Your task to perform on an android device: turn notification dots off Image 0: 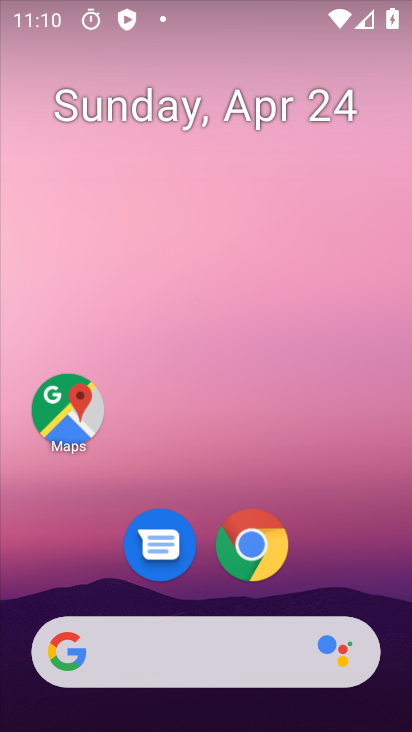
Step 0: drag from (303, 537) to (316, 169)
Your task to perform on an android device: turn notification dots off Image 1: 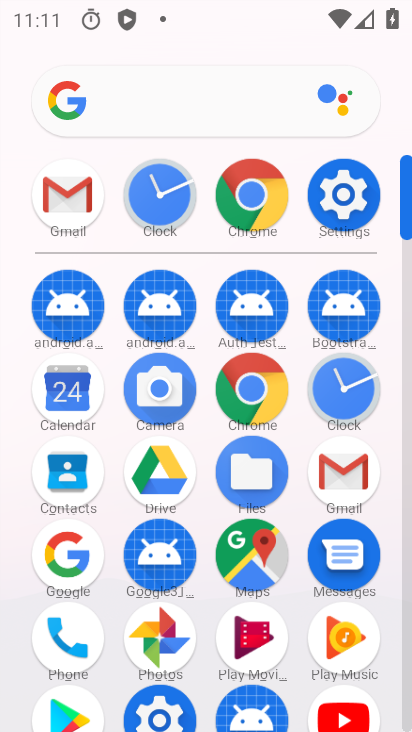
Step 1: click (350, 194)
Your task to perform on an android device: turn notification dots off Image 2: 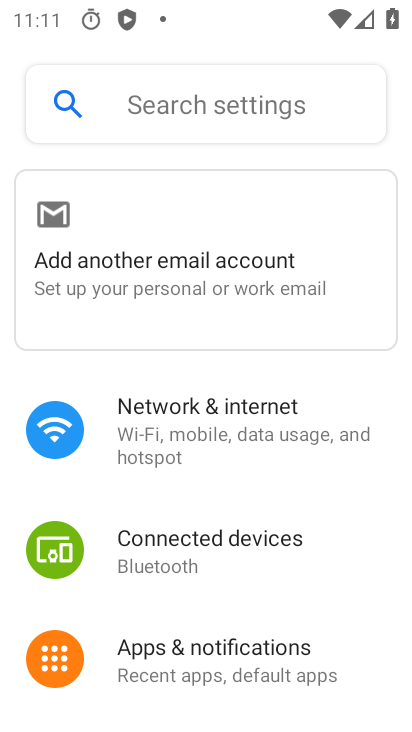
Step 2: click (204, 109)
Your task to perform on an android device: turn notification dots off Image 3: 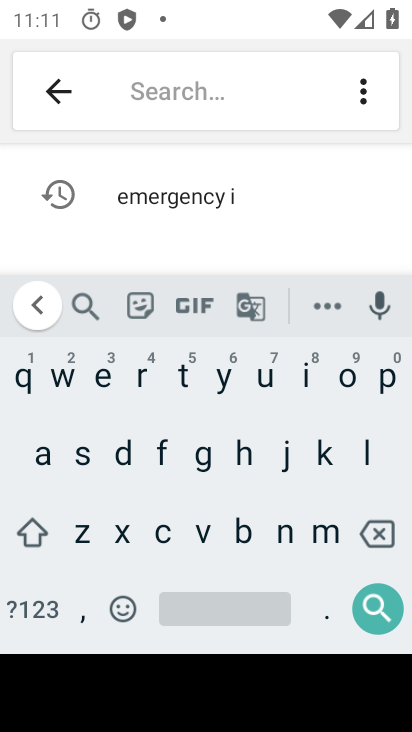
Step 3: click (123, 457)
Your task to perform on an android device: turn notification dots off Image 4: 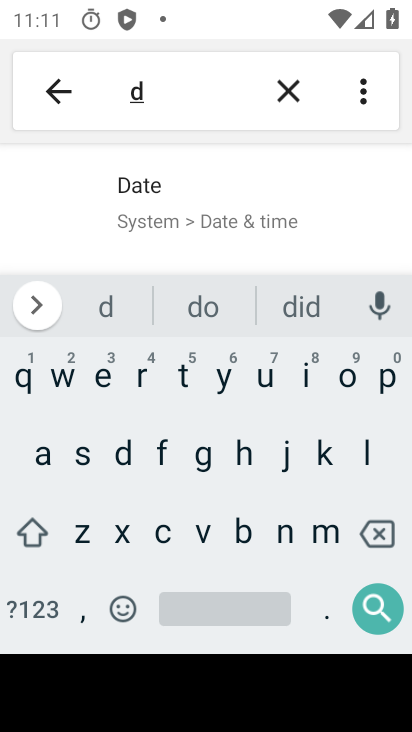
Step 4: click (341, 379)
Your task to perform on an android device: turn notification dots off Image 5: 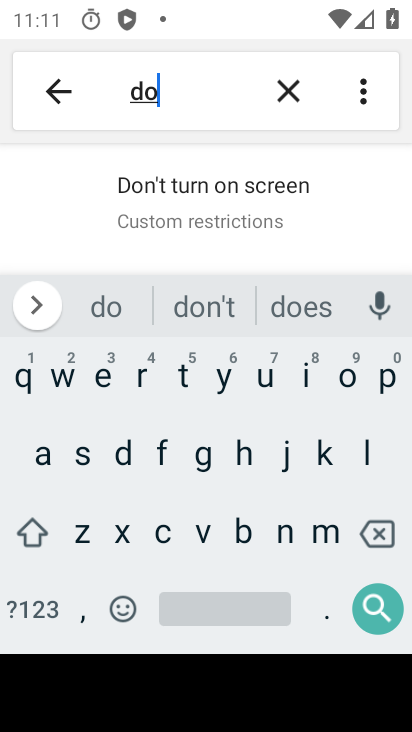
Step 5: click (190, 375)
Your task to perform on an android device: turn notification dots off Image 6: 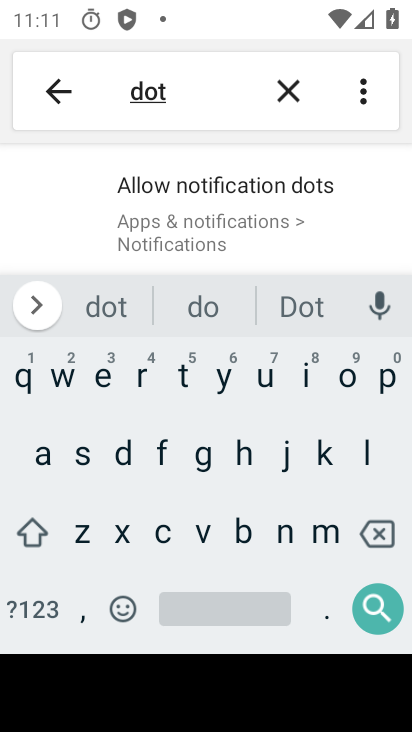
Step 6: click (244, 184)
Your task to perform on an android device: turn notification dots off Image 7: 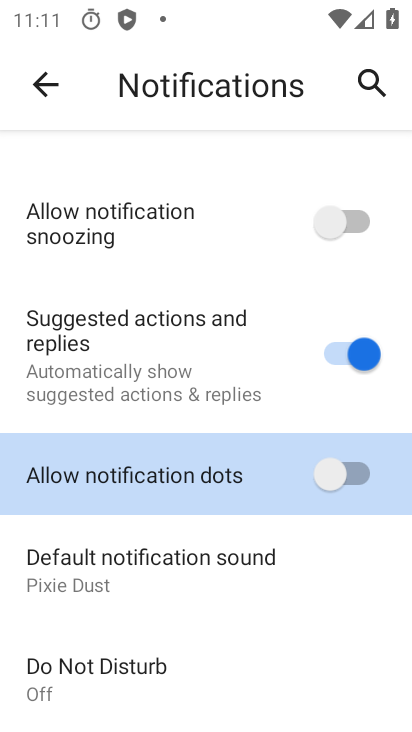
Step 7: click (182, 478)
Your task to perform on an android device: turn notification dots off Image 8: 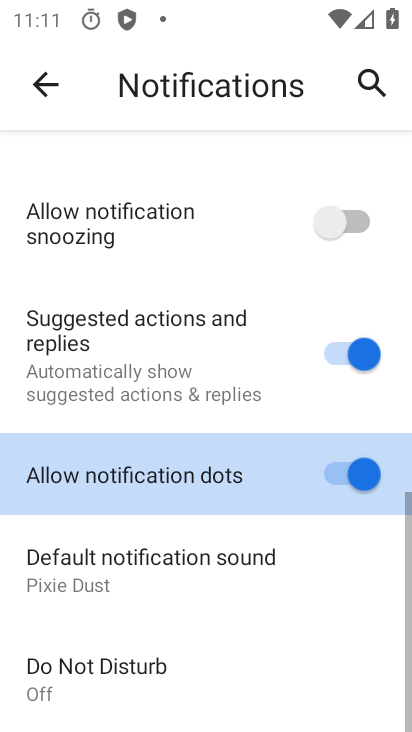
Step 8: click (188, 470)
Your task to perform on an android device: turn notification dots off Image 9: 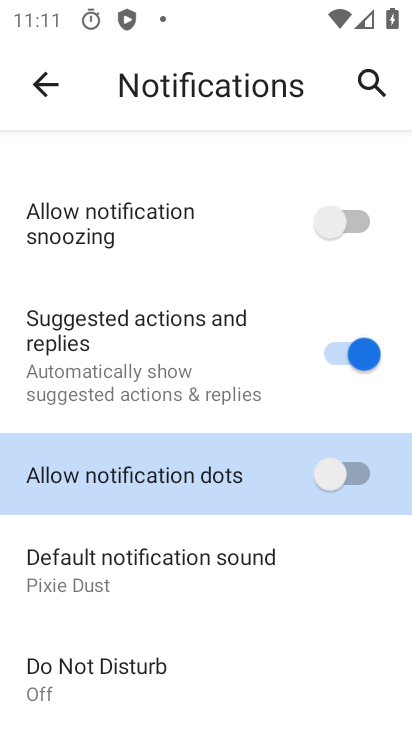
Step 9: task complete